Your task to perform on an android device: all mails in gmail Image 0: 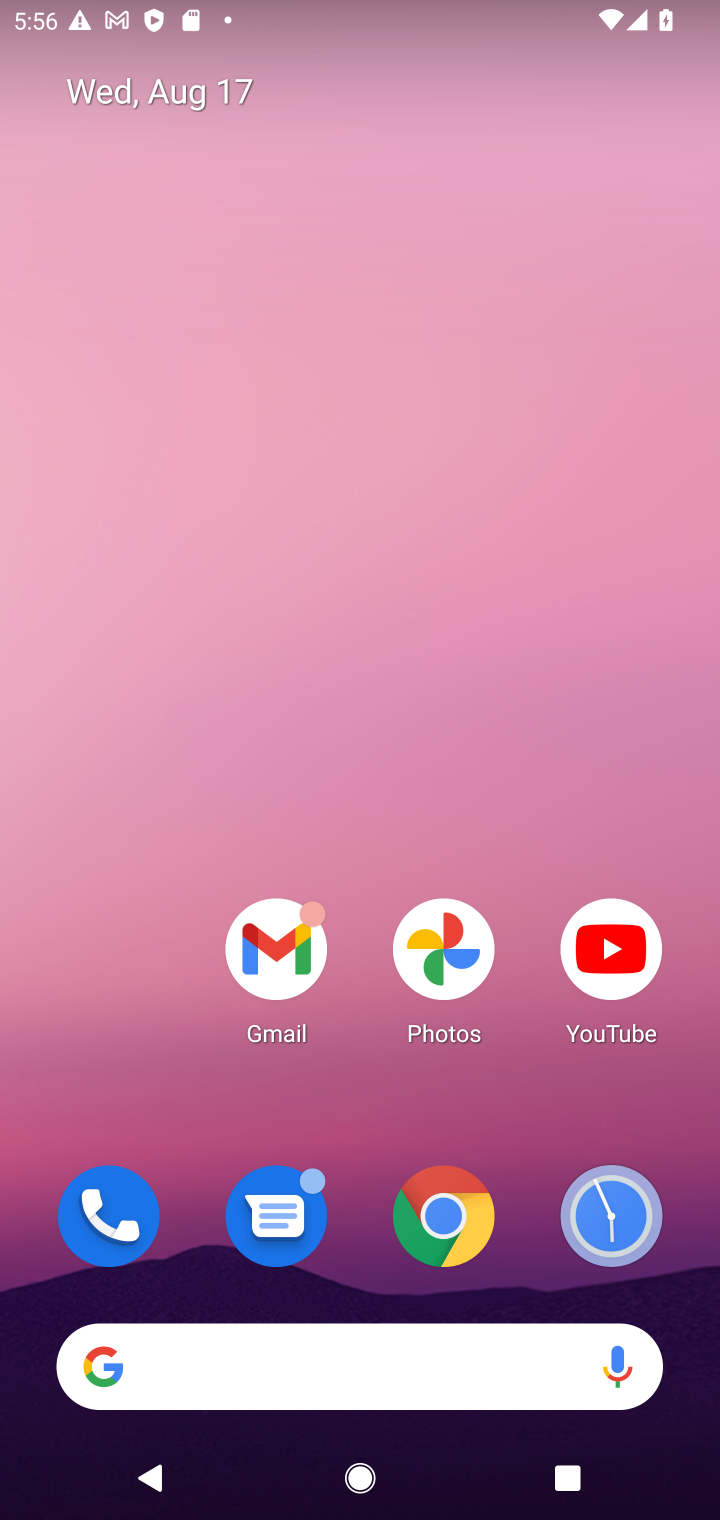
Step 0: click (292, 560)
Your task to perform on an android device: all mails in gmail Image 1: 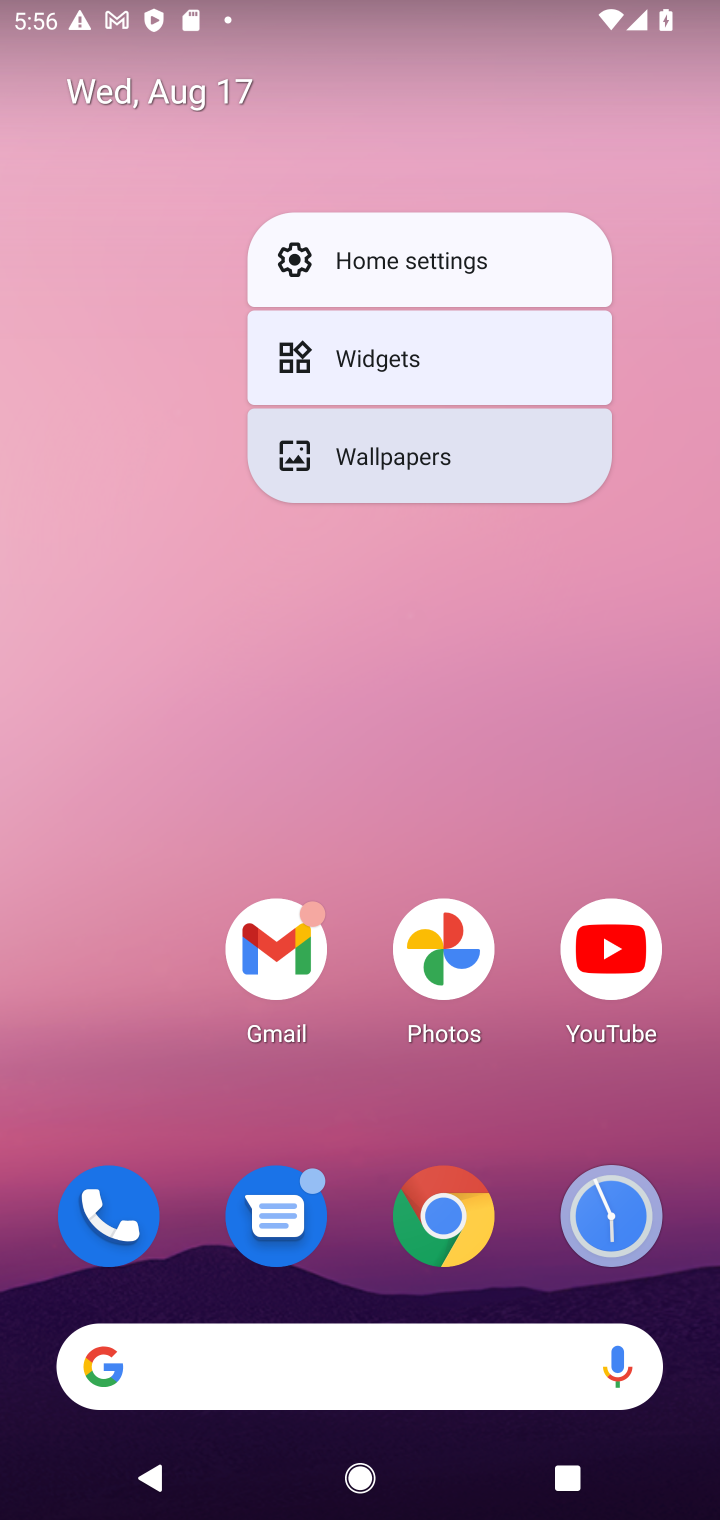
Step 1: click (292, 560)
Your task to perform on an android device: all mails in gmail Image 2: 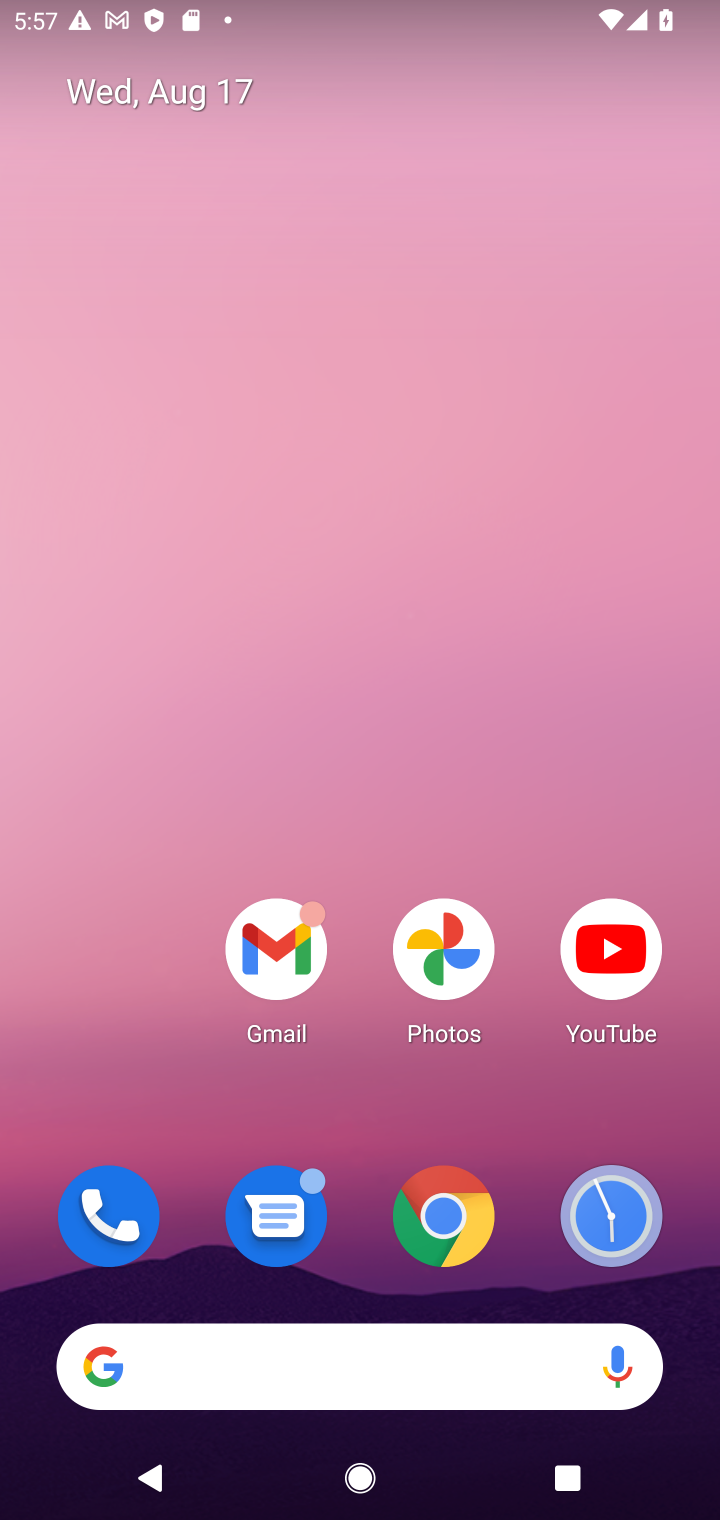
Step 2: drag from (363, 1097) to (452, 24)
Your task to perform on an android device: all mails in gmail Image 3: 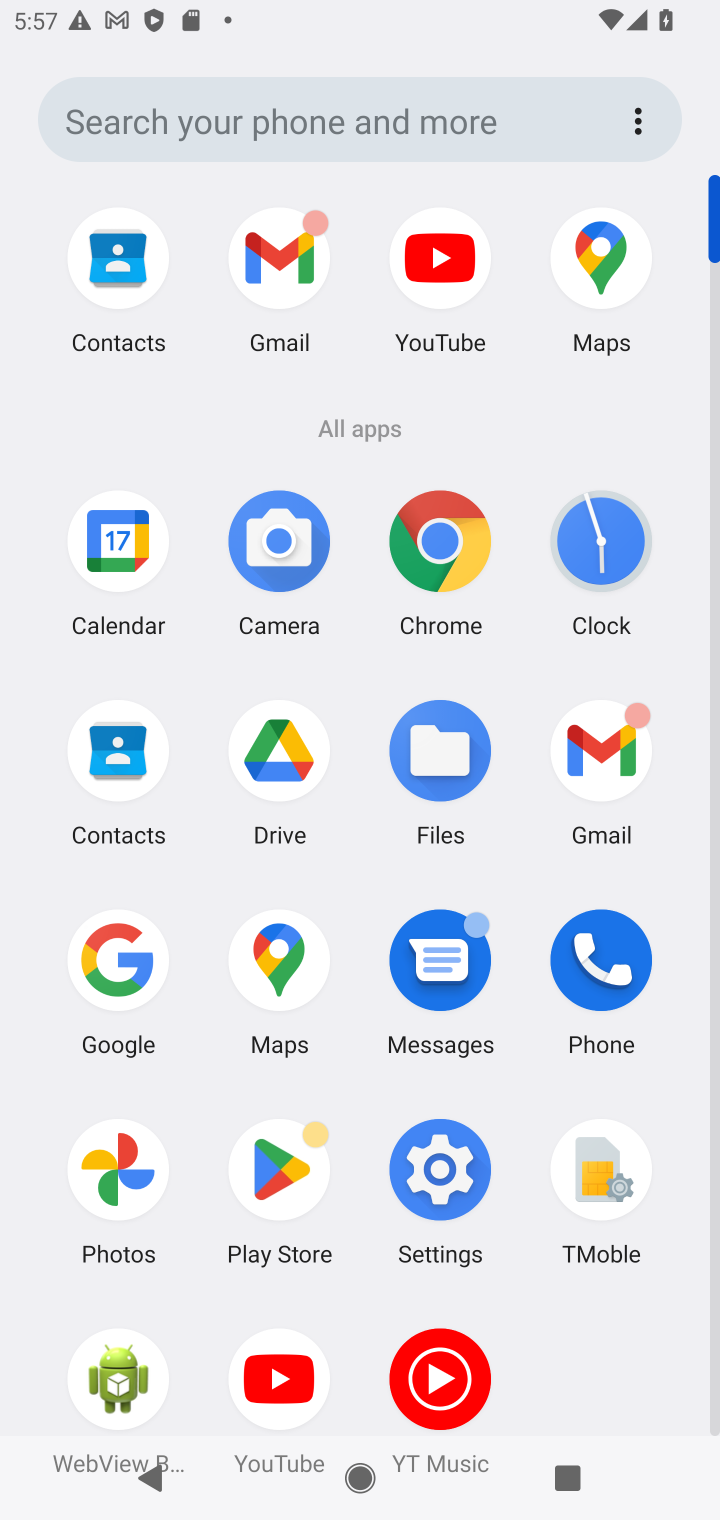
Step 3: click (590, 736)
Your task to perform on an android device: all mails in gmail Image 4: 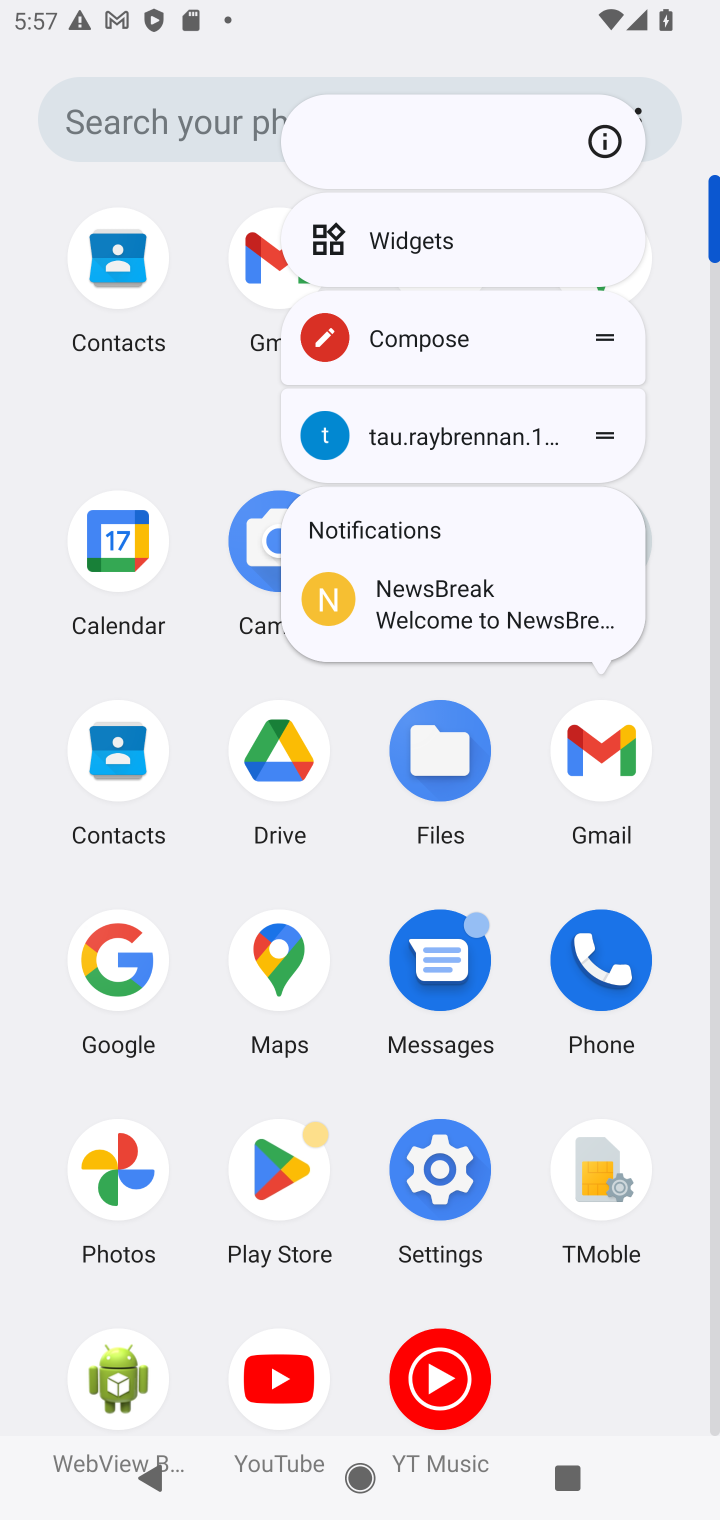
Step 4: click (618, 747)
Your task to perform on an android device: all mails in gmail Image 5: 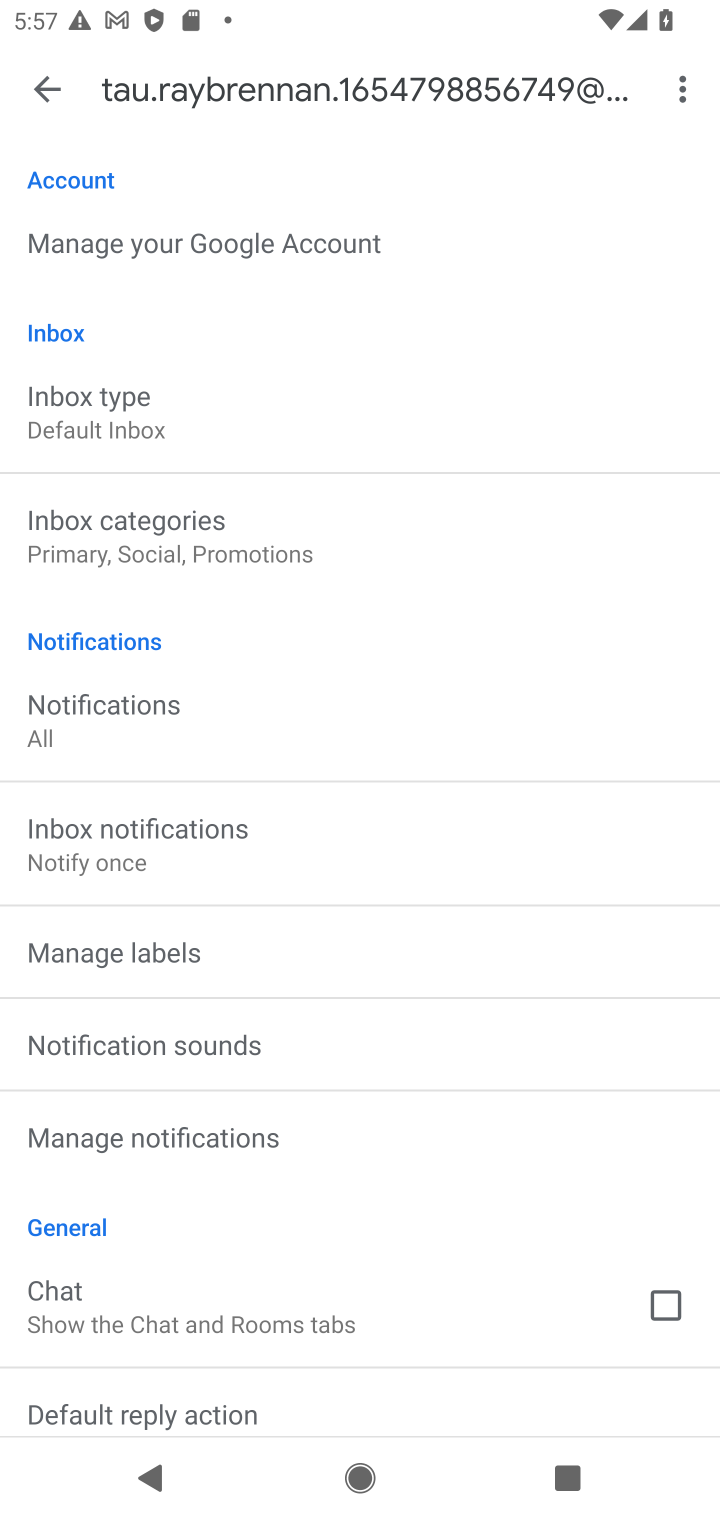
Step 5: click (34, 82)
Your task to perform on an android device: all mails in gmail Image 6: 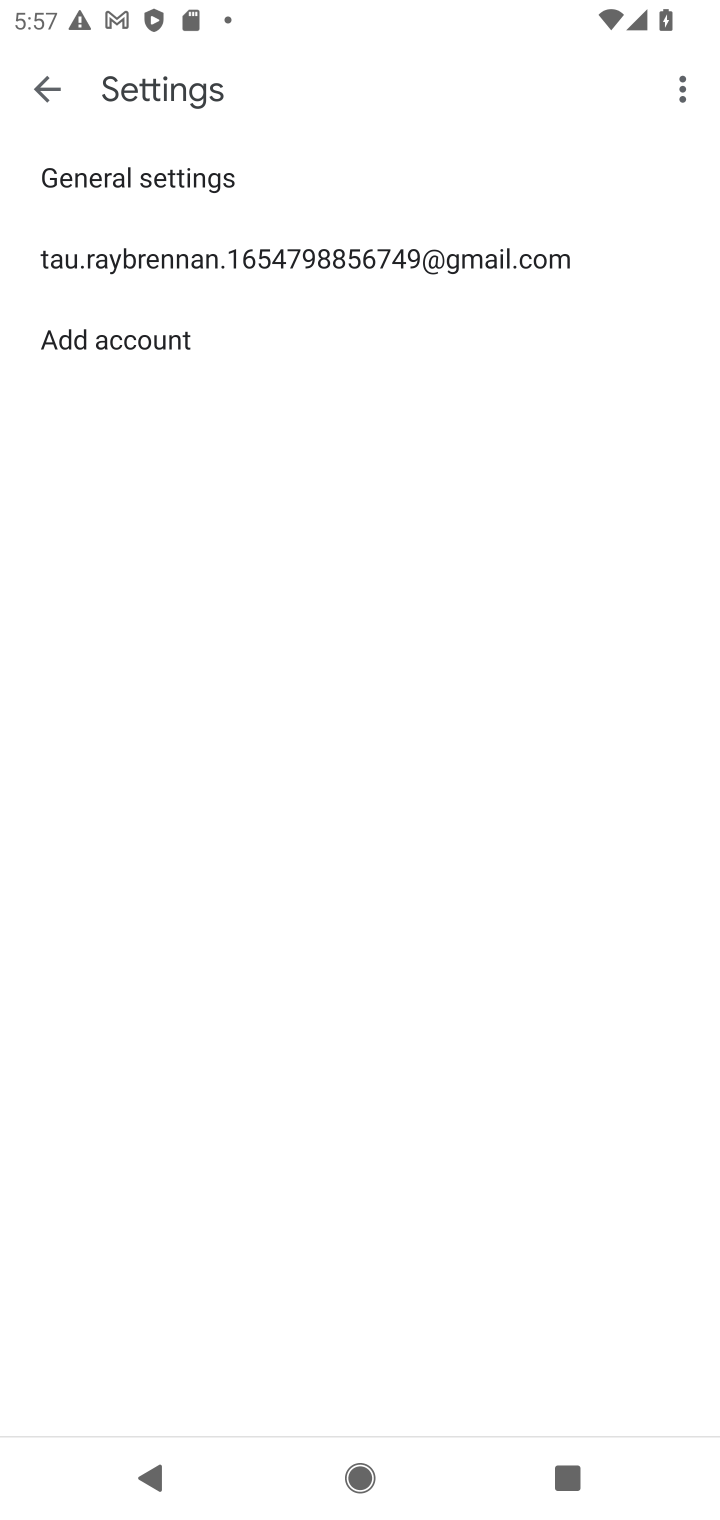
Step 6: click (51, 80)
Your task to perform on an android device: all mails in gmail Image 7: 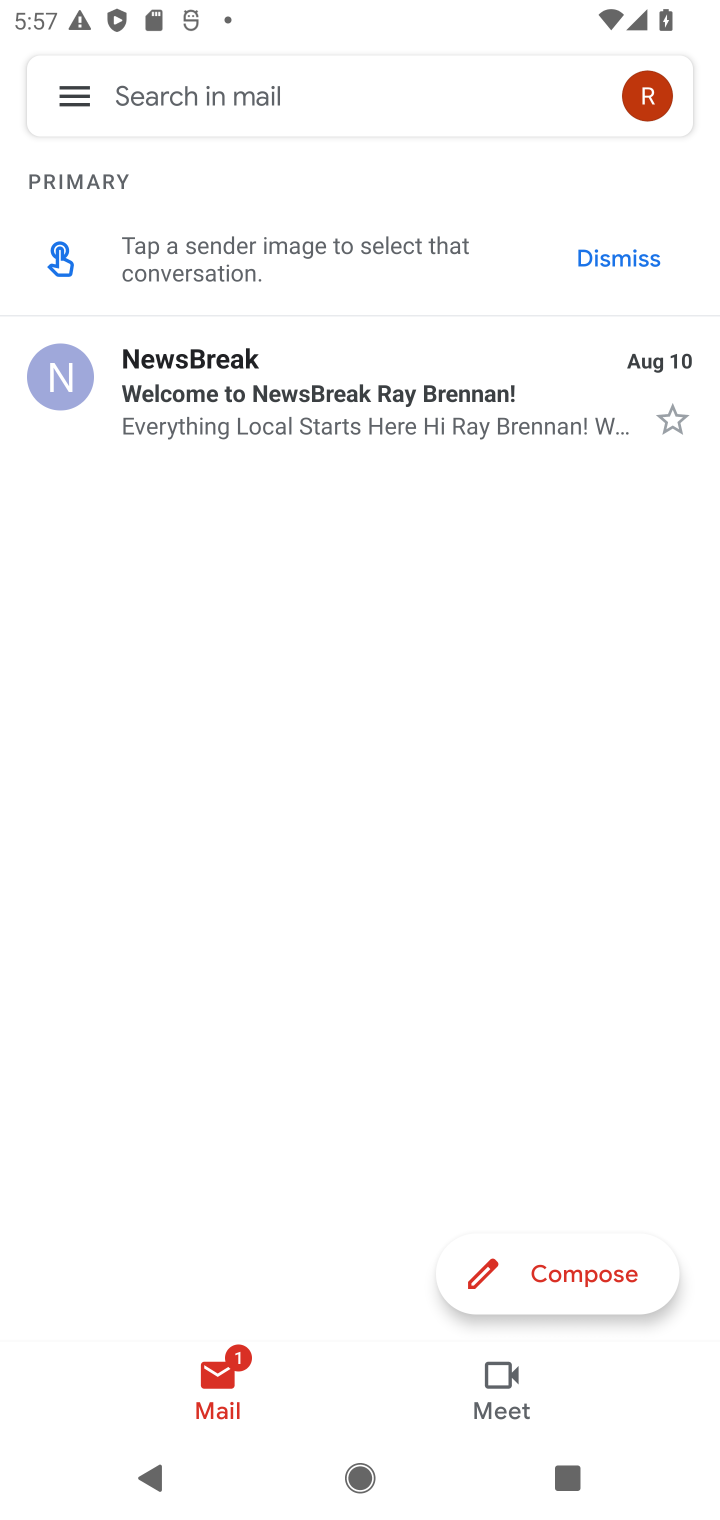
Step 7: click (89, 102)
Your task to perform on an android device: all mails in gmail Image 8: 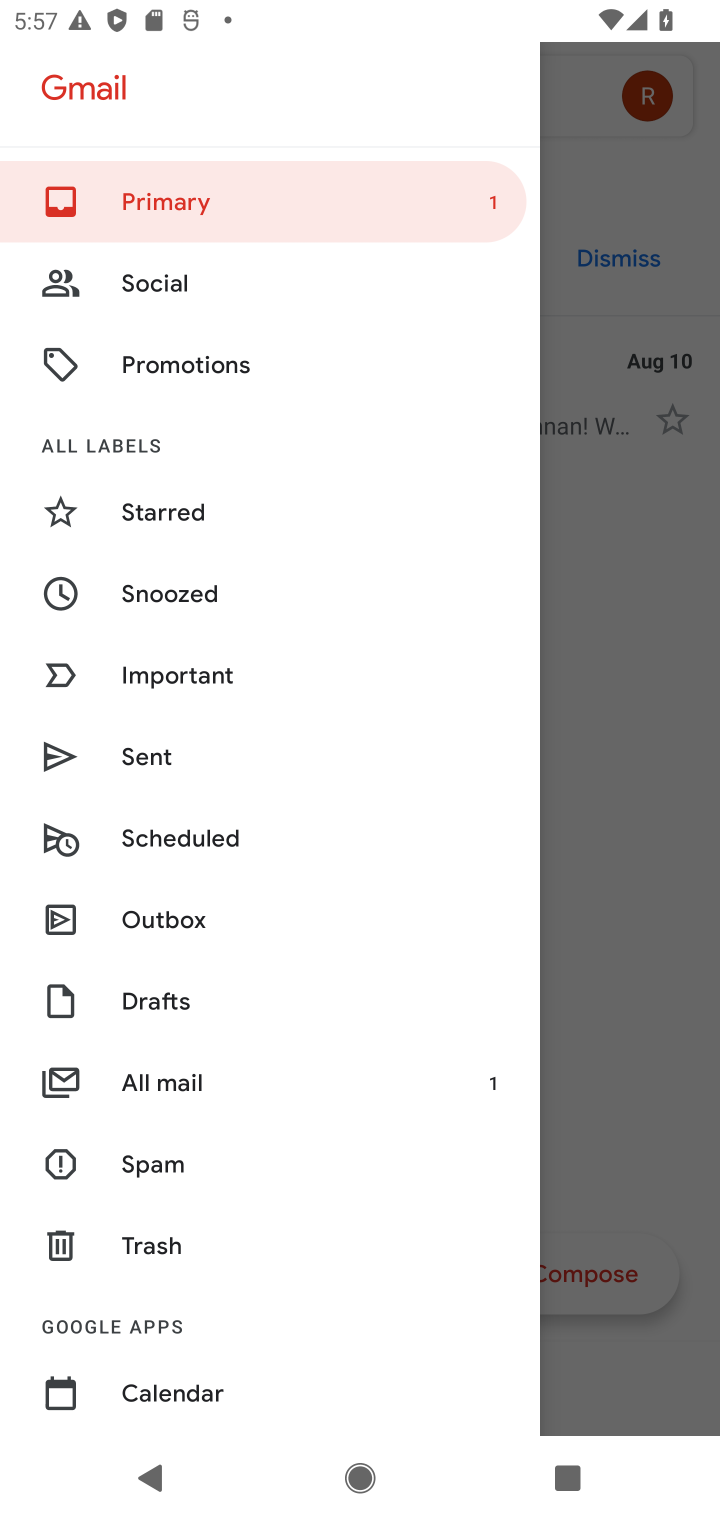
Step 8: drag from (182, 1203) to (111, 471)
Your task to perform on an android device: all mails in gmail Image 9: 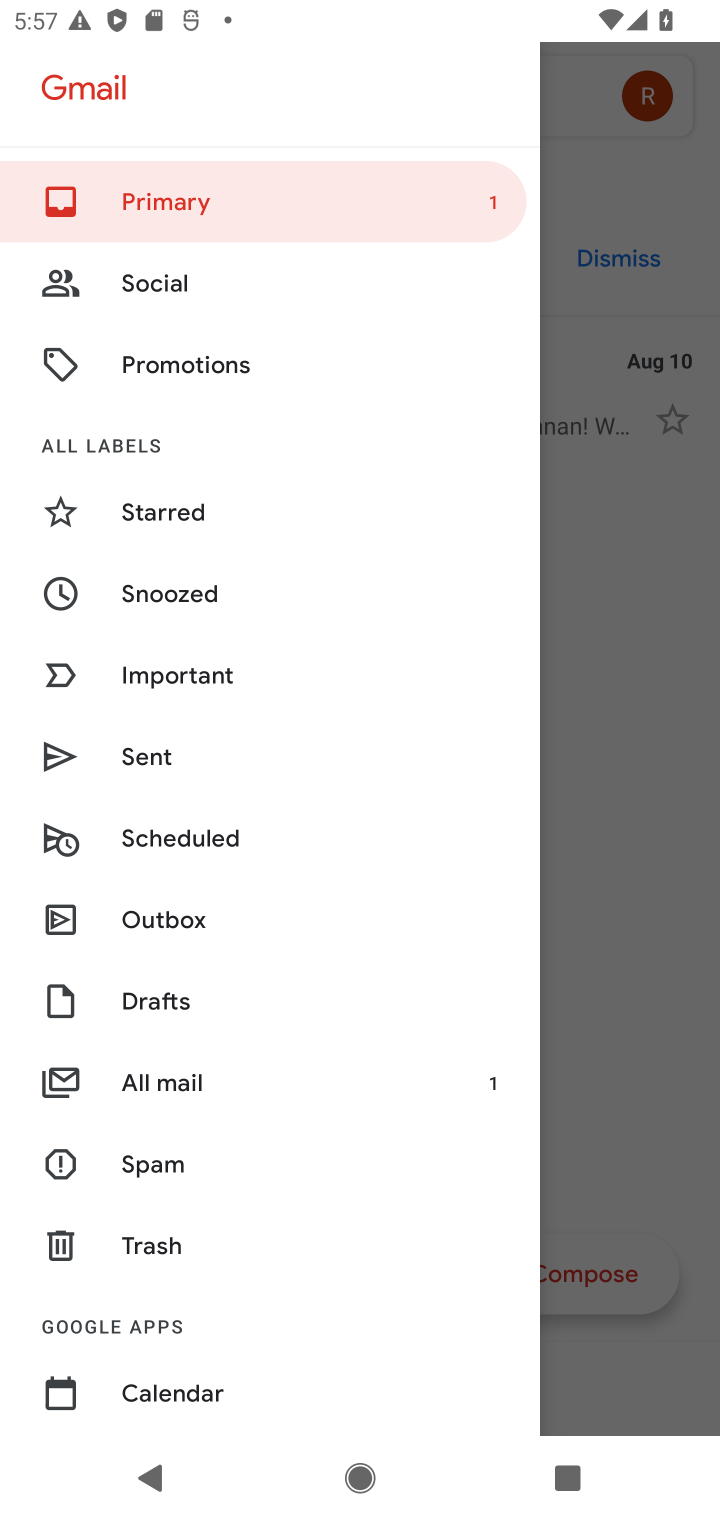
Step 9: click (148, 1066)
Your task to perform on an android device: all mails in gmail Image 10: 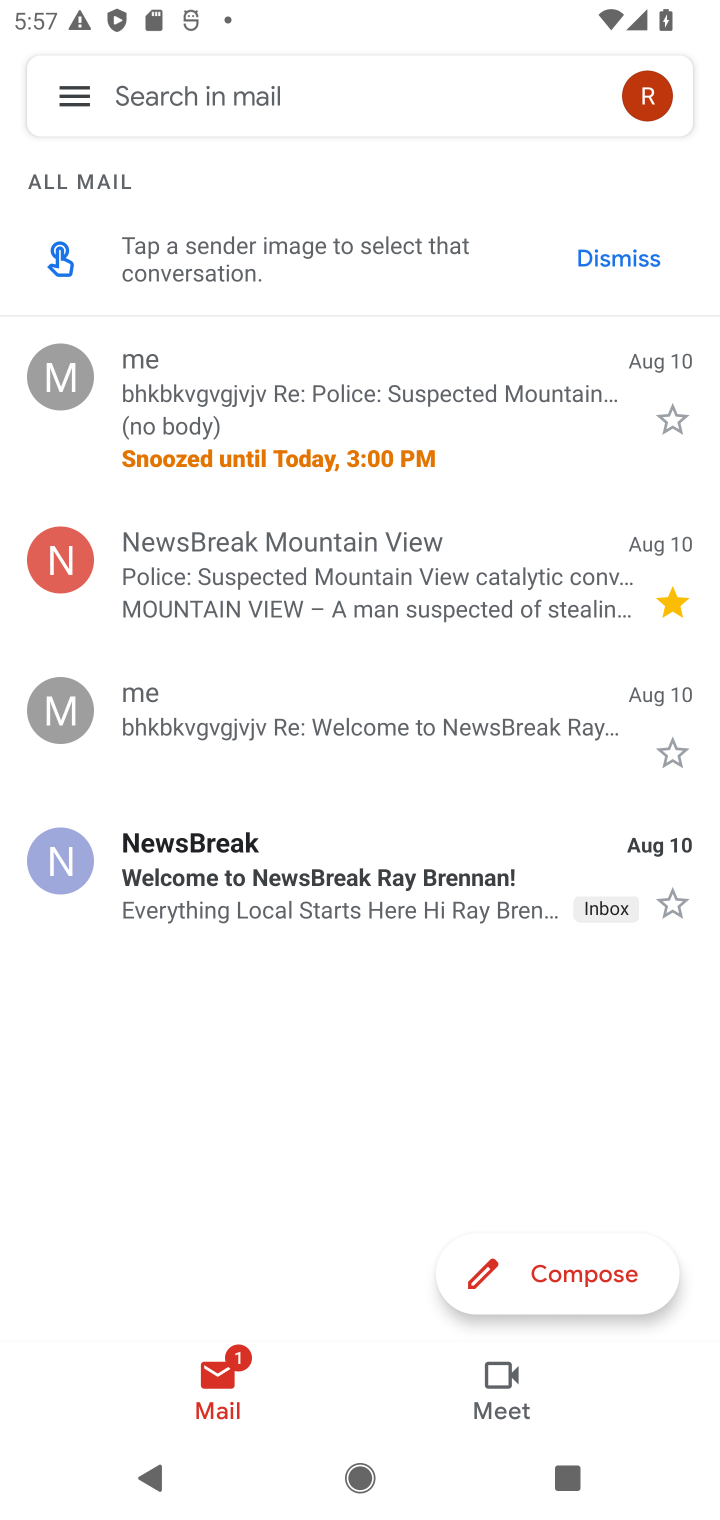
Step 10: task complete